Your task to perform on an android device: What's on my calendar today? Image 0: 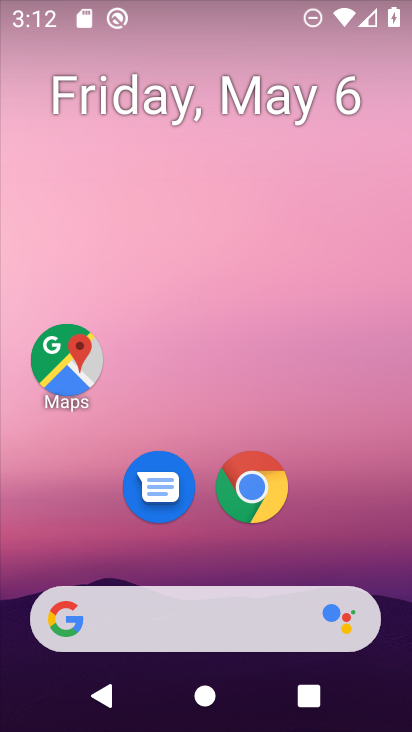
Step 0: drag from (338, 556) to (387, 38)
Your task to perform on an android device: What's on my calendar today? Image 1: 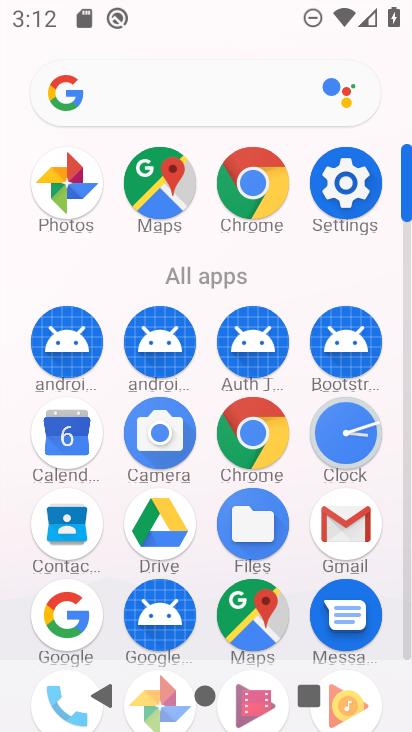
Step 1: click (84, 441)
Your task to perform on an android device: What's on my calendar today? Image 2: 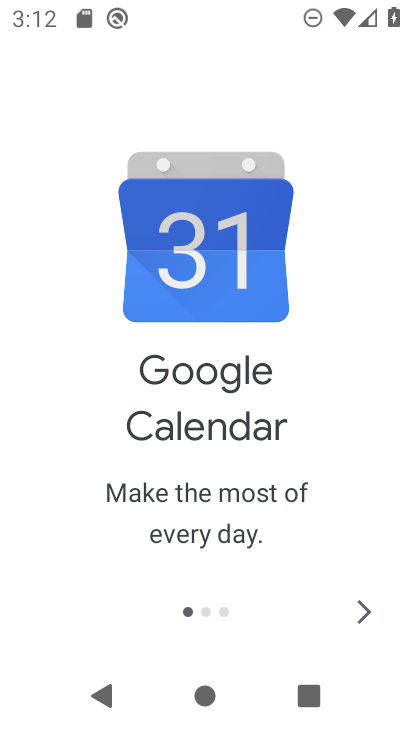
Step 2: click (354, 620)
Your task to perform on an android device: What's on my calendar today? Image 3: 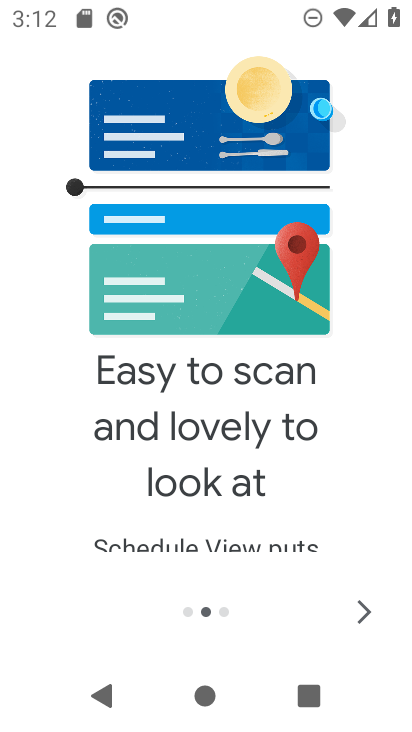
Step 3: click (357, 620)
Your task to perform on an android device: What's on my calendar today? Image 4: 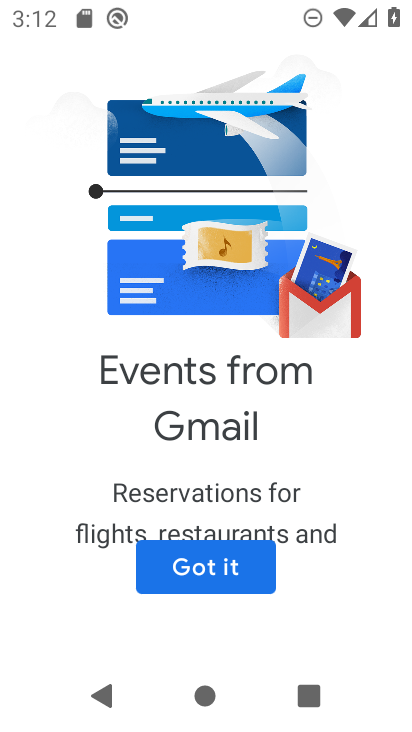
Step 4: click (218, 557)
Your task to perform on an android device: What's on my calendar today? Image 5: 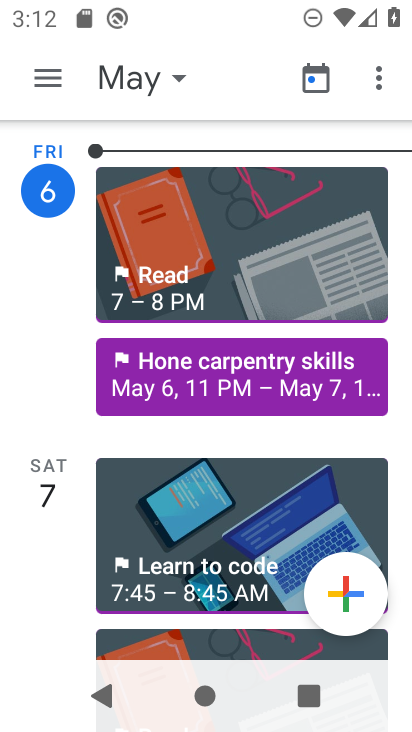
Step 5: click (176, 79)
Your task to perform on an android device: What's on my calendar today? Image 6: 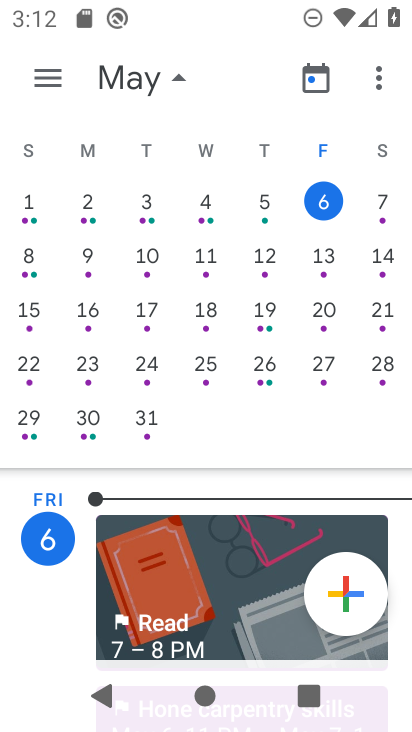
Step 6: click (327, 203)
Your task to perform on an android device: What's on my calendar today? Image 7: 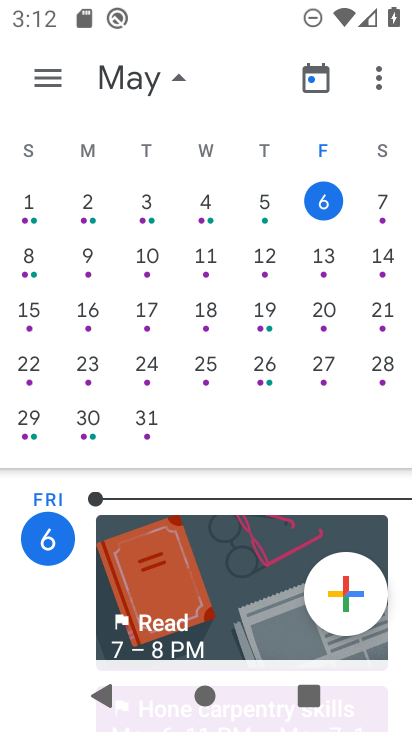
Step 7: task complete